Your task to perform on an android device: check out phone information Image 0: 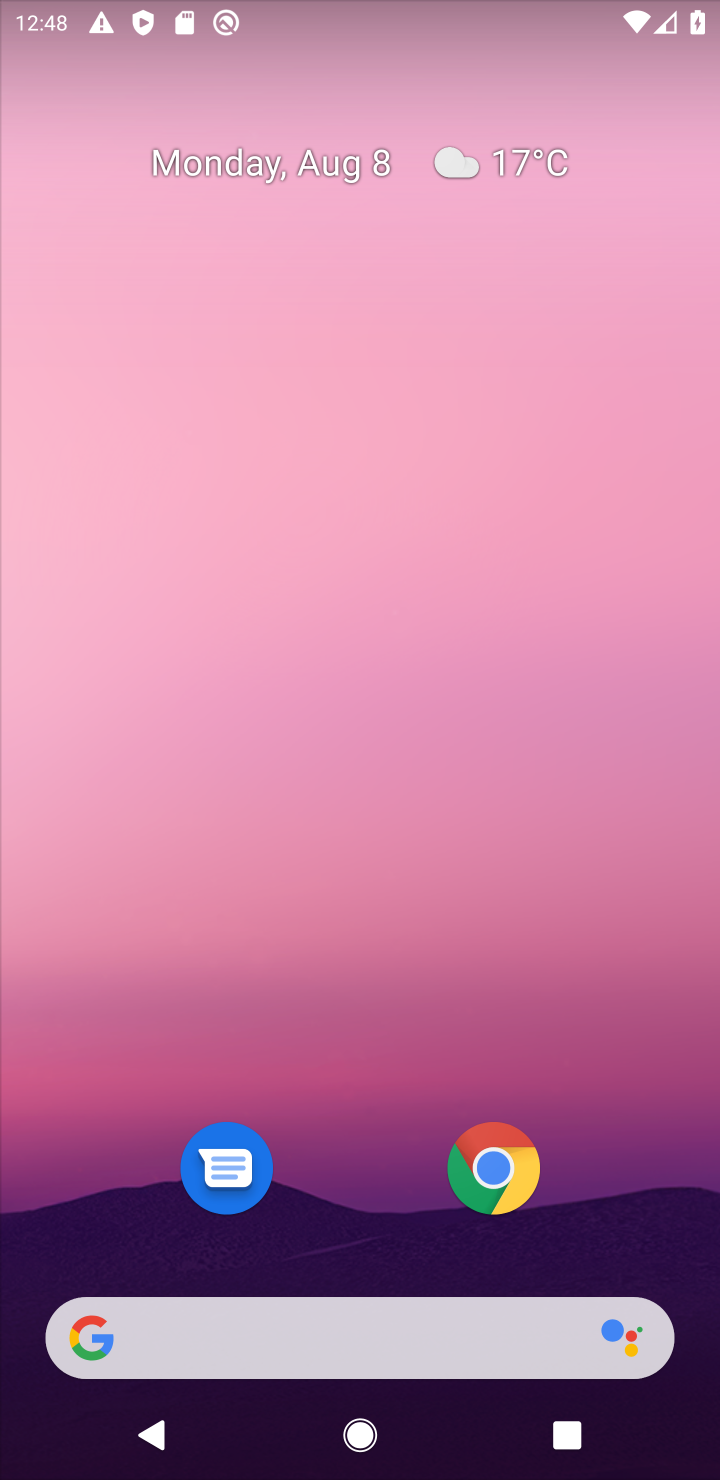
Step 0: drag from (125, 1329) to (289, 628)
Your task to perform on an android device: check out phone information Image 1: 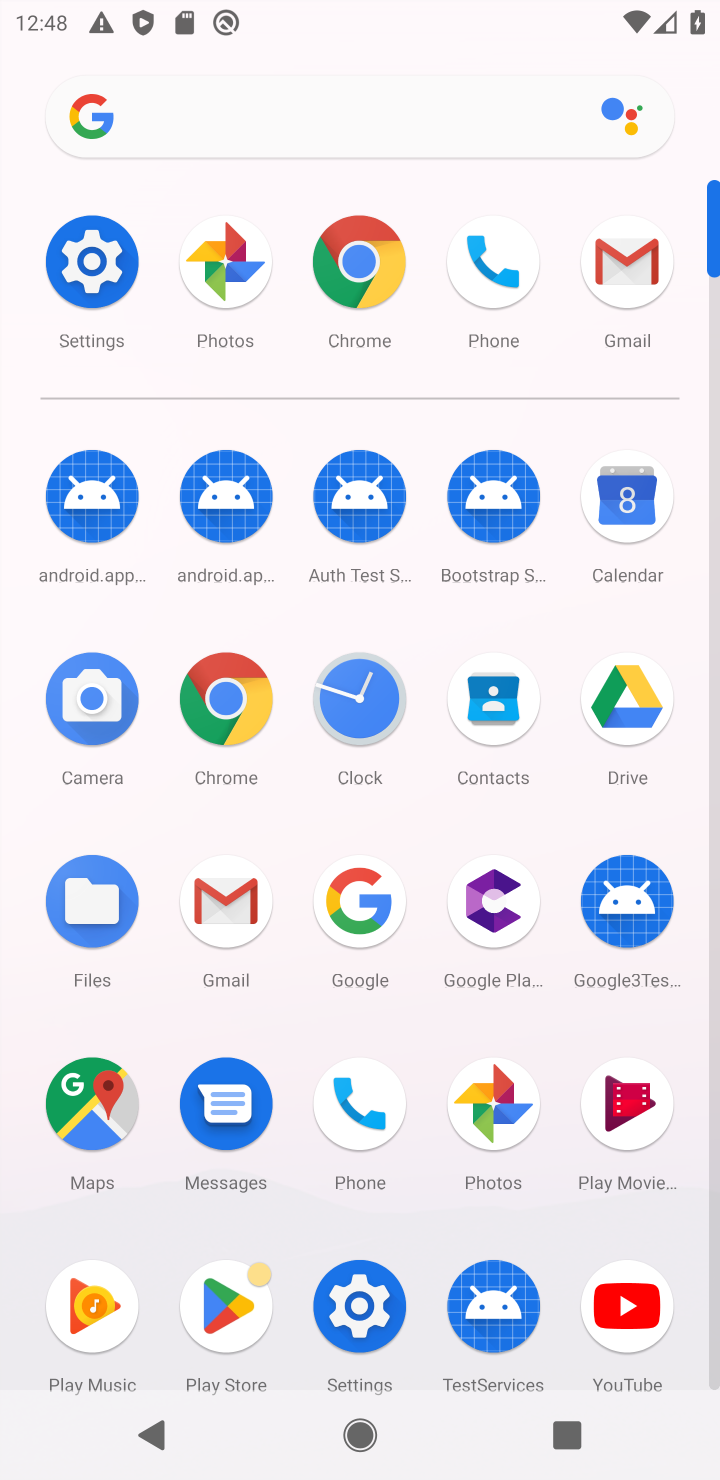
Step 1: click (348, 1120)
Your task to perform on an android device: check out phone information Image 2: 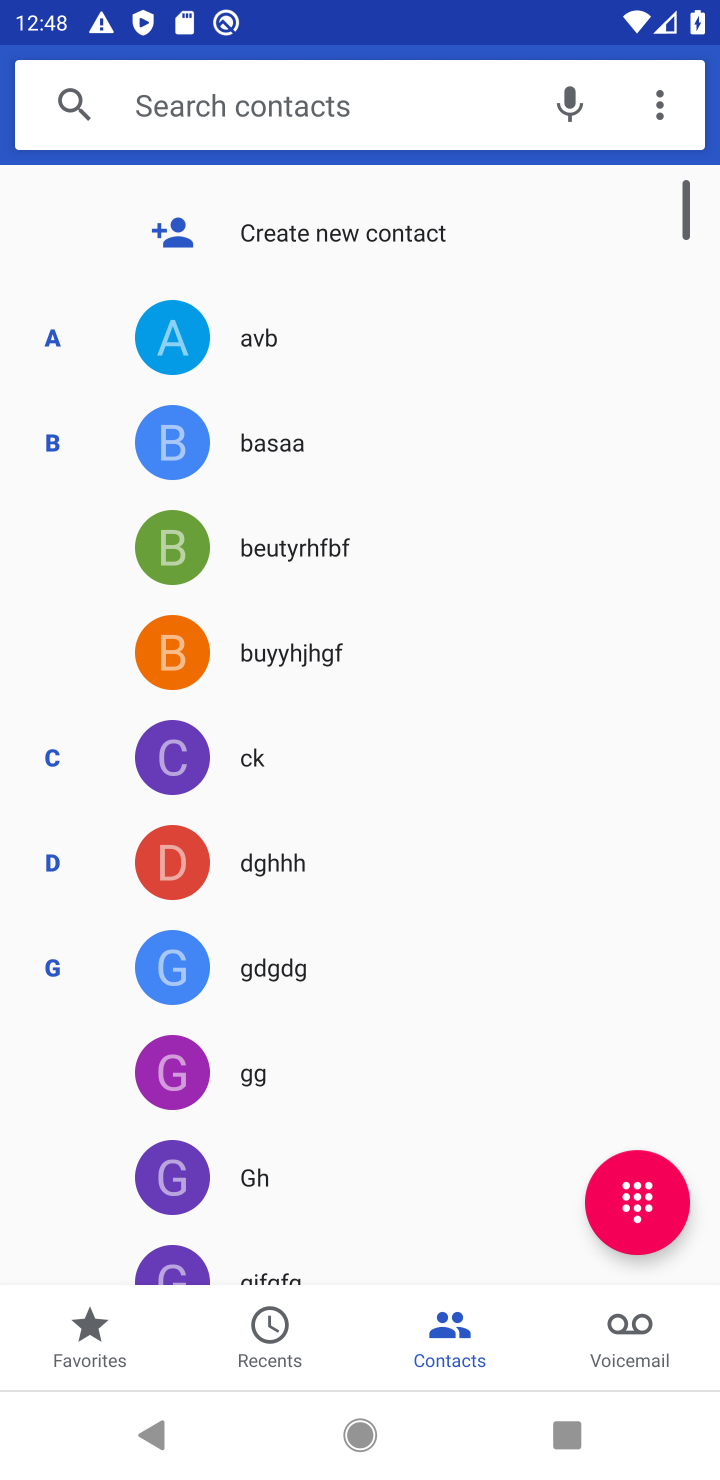
Step 2: task complete